Your task to perform on an android device: change the clock display to analog Image 0: 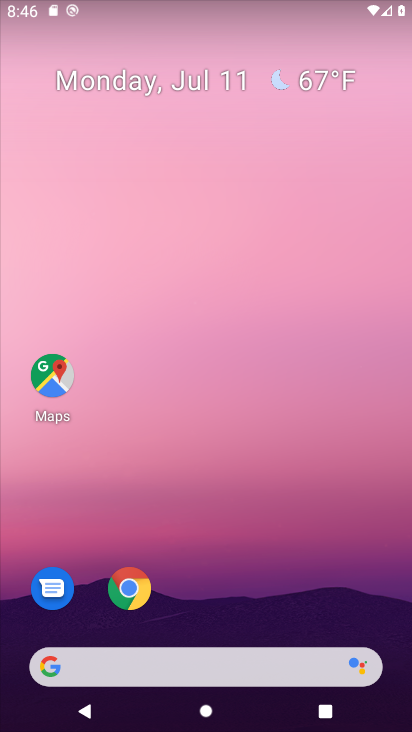
Step 0: drag from (318, 571) to (408, 326)
Your task to perform on an android device: change the clock display to analog Image 1: 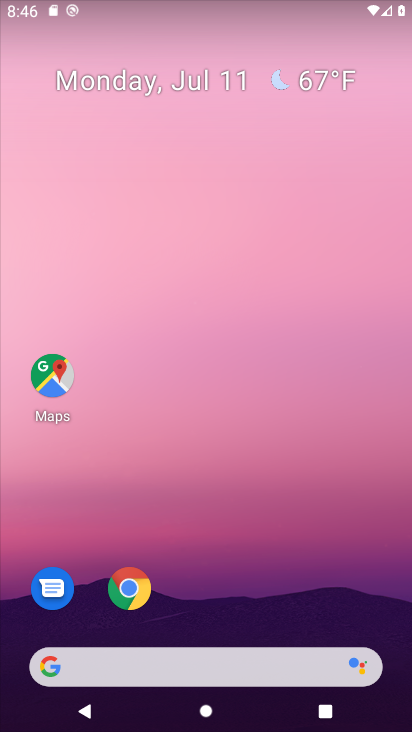
Step 1: drag from (243, 574) to (222, 35)
Your task to perform on an android device: change the clock display to analog Image 2: 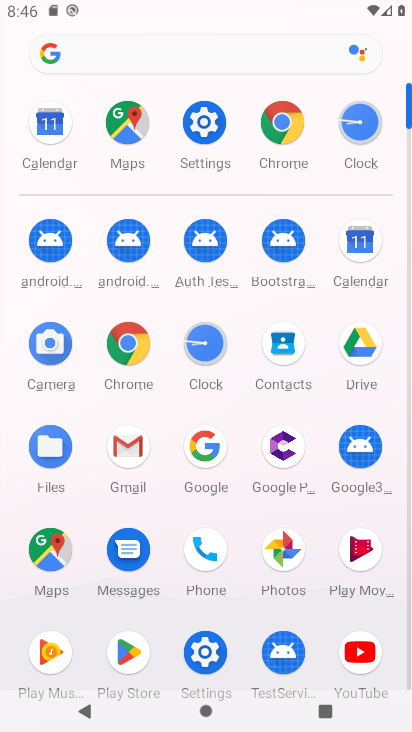
Step 2: click (205, 341)
Your task to perform on an android device: change the clock display to analog Image 3: 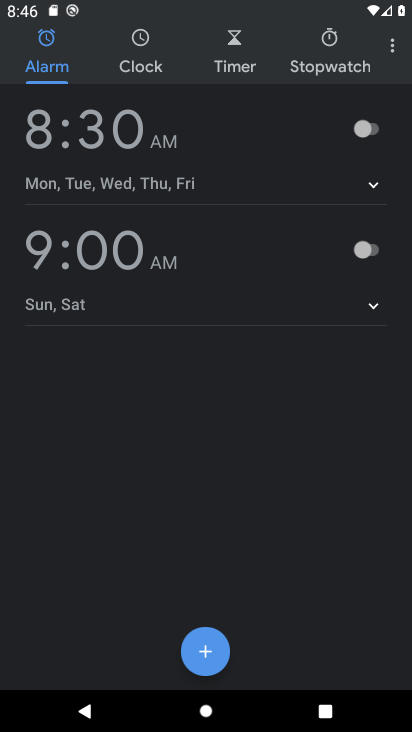
Step 3: click (389, 45)
Your task to perform on an android device: change the clock display to analog Image 4: 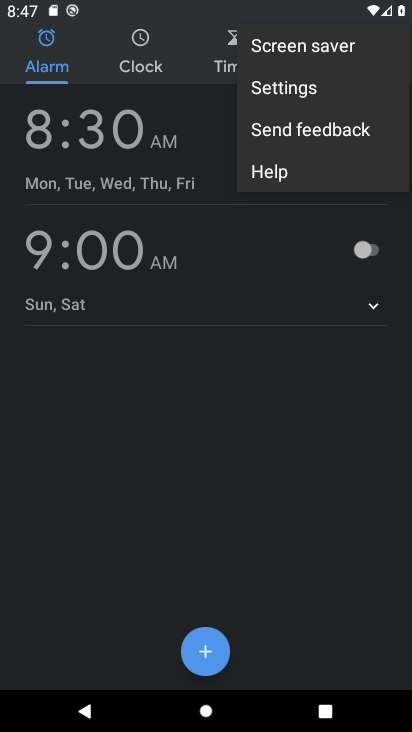
Step 4: click (302, 95)
Your task to perform on an android device: change the clock display to analog Image 5: 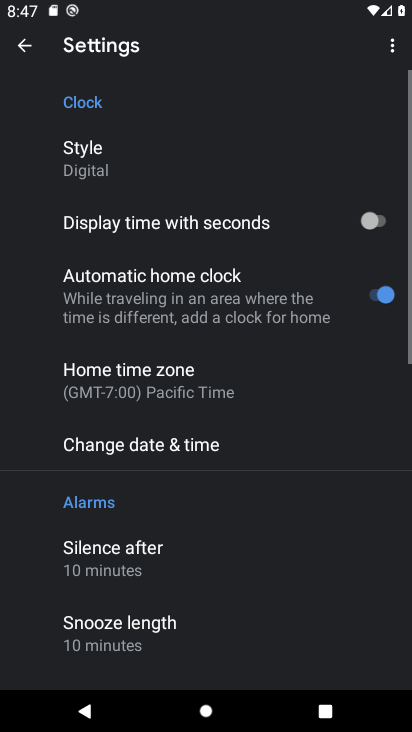
Step 5: click (112, 168)
Your task to perform on an android device: change the clock display to analog Image 6: 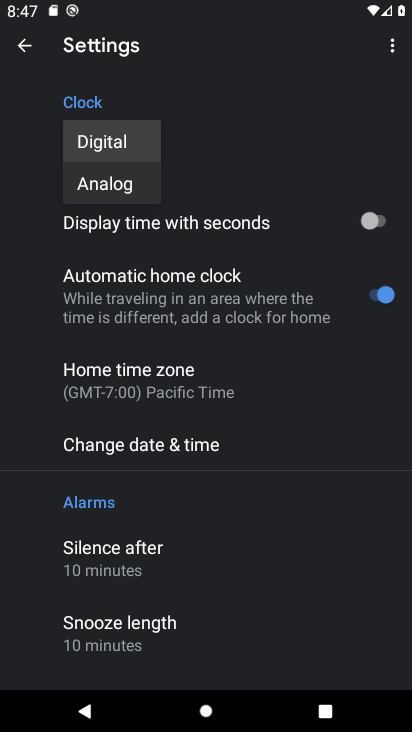
Step 6: click (112, 180)
Your task to perform on an android device: change the clock display to analog Image 7: 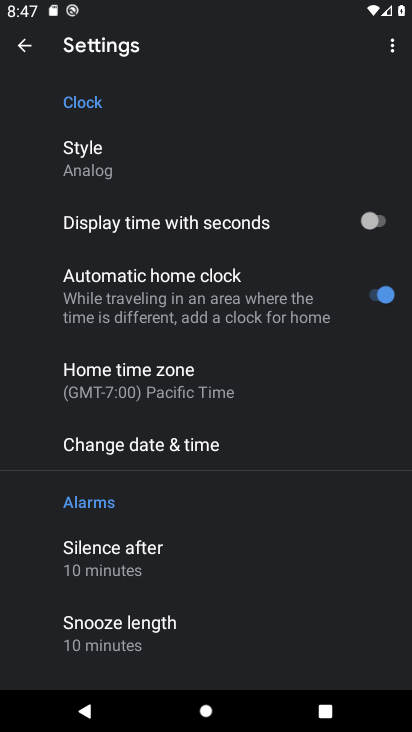
Step 7: task complete